Your task to perform on an android device: allow notifications from all sites in the chrome app Image 0: 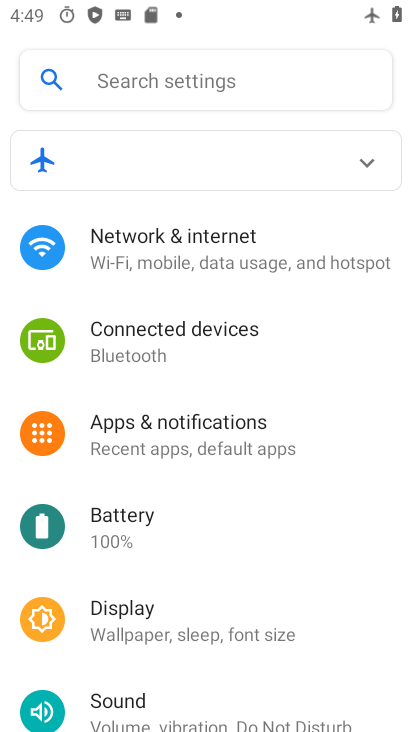
Step 0: press home button
Your task to perform on an android device: allow notifications from all sites in the chrome app Image 1: 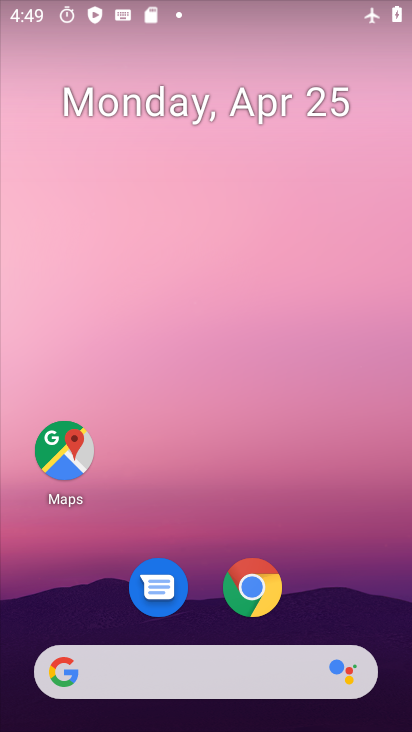
Step 1: drag from (287, 529) to (344, 94)
Your task to perform on an android device: allow notifications from all sites in the chrome app Image 2: 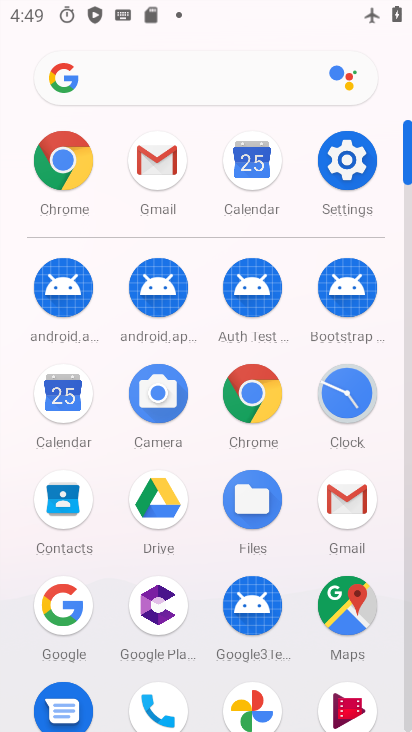
Step 2: click (256, 398)
Your task to perform on an android device: allow notifications from all sites in the chrome app Image 3: 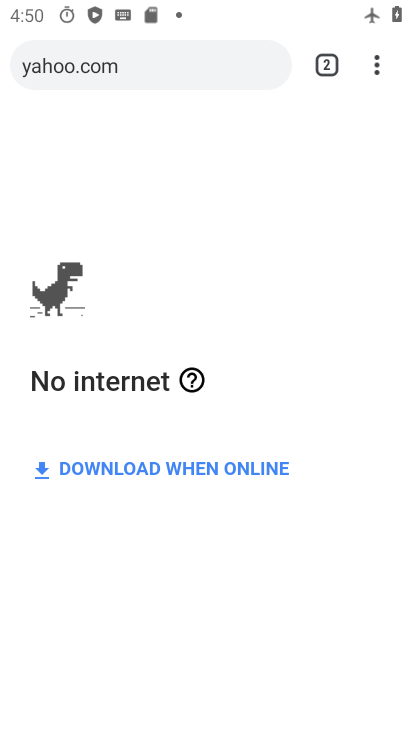
Step 3: click (385, 66)
Your task to perform on an android device: allow notifications from all sites in the chrome app Image 4: 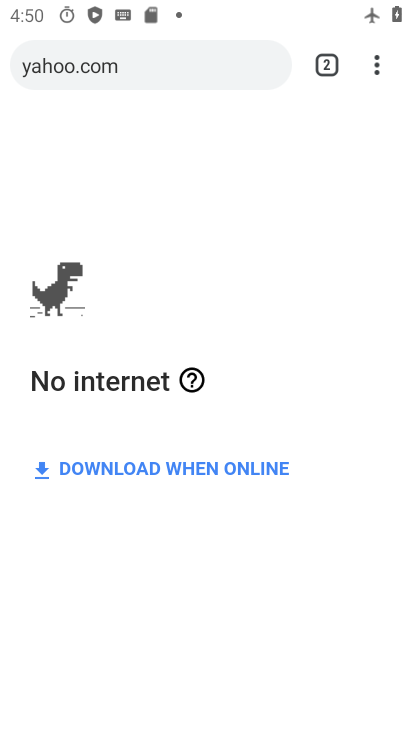
Step 4: drag from (374, 58) to (223, 630)
Your task to perform on an android device: allow notifications from all sites in the chrome app Image 5: 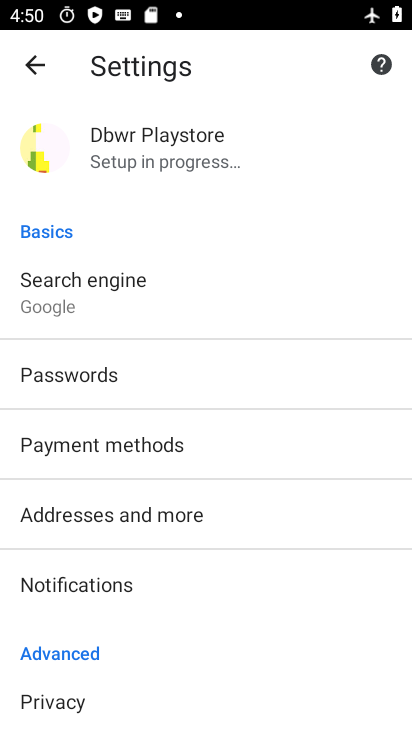
Step 5: drag from (292, 692) to (294, 235)
Your task to perform on an android device: allow notifications from all sites in the chrome app Image 6: 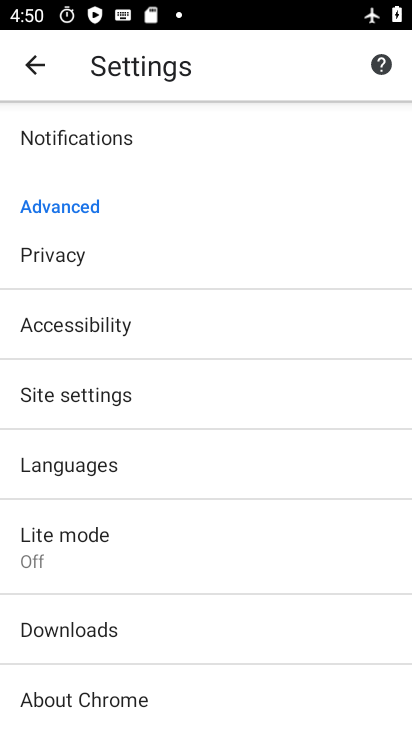
Step 6: drag from (160, 614) to (228, 389)
Your task to perform on an android device: allow notifications from all sites in the chrome app Image 7: 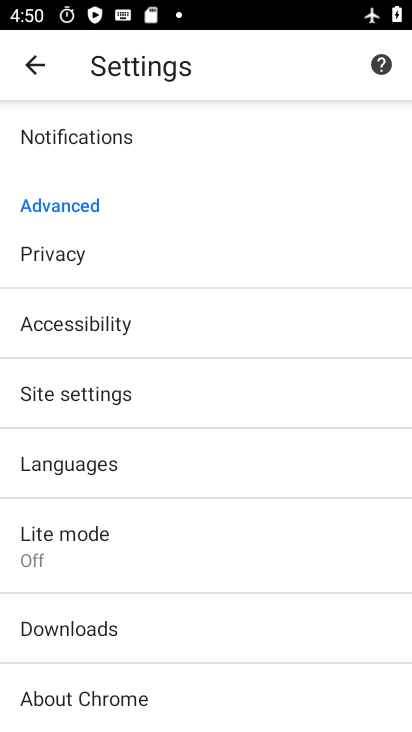
Step 7: drag from (148, 505) to (220, 251)
Your task to perform on an android device: allow notifications from all sites in the chrome app Image 8: 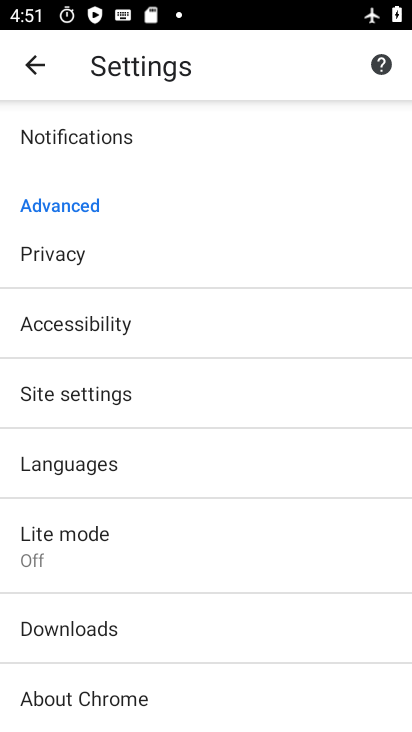
Step 8: drag from (171, 278) to (180, 489)
Your task to perform on an android device: allow notifications from all sites in the chrome app Image 9: 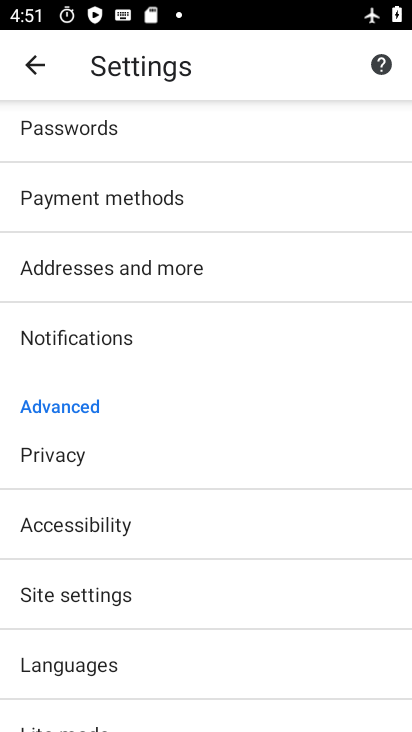
Step 9: click (78, 334)
Your task to perform on an android device: allow notifications from all sites in the chrome app Image 10: 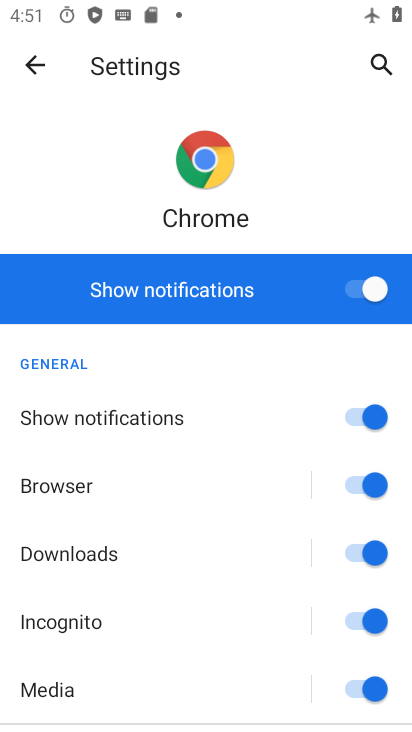
Step 10: drag from (245, 478) to (278, 113)
Your task to perform on an android device: allow notifications from all sites in the chrome app Image 11: 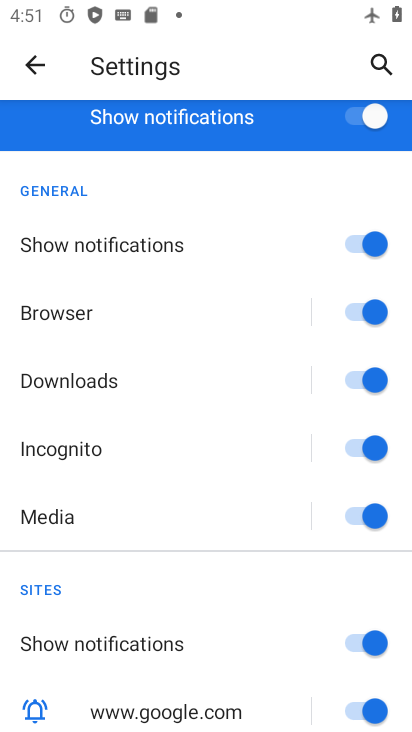
Step 11: drag from (174, 567) to (246, 118)
Your task to perform on an android device: allow notifications from all sites in the chrome app Image 12: 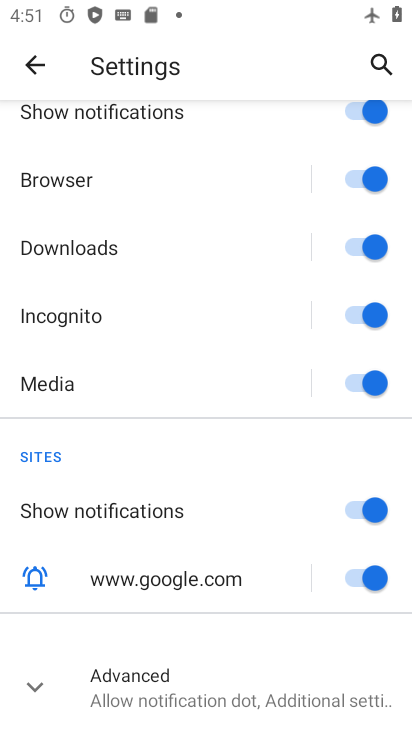
Step 12: click (152, 685)
Your task to perform on an android device: allow notifications from all sites in the chrome app Image 13: 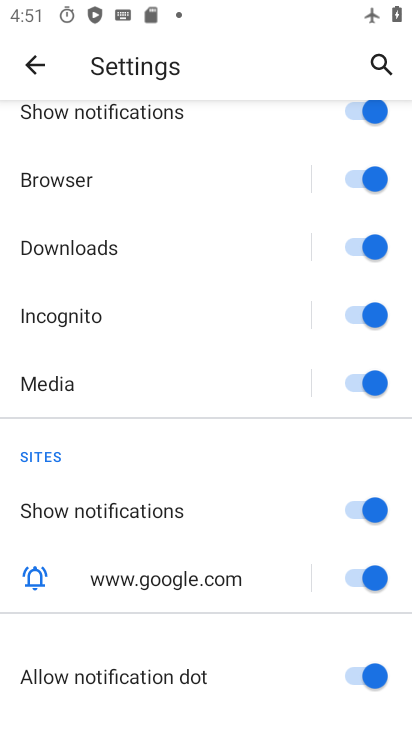
Step 13: task complete